Your task to perform on an android device: change the clock display to digital Image 0: 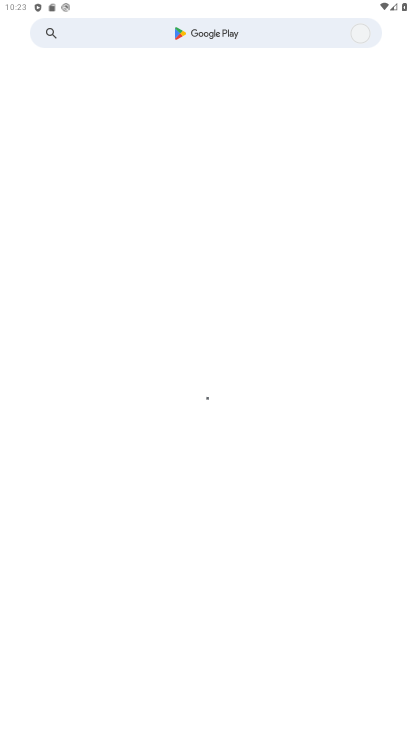
Step 0: press home button
Your task to perform on an android device: change the clock display to digital Image 1: 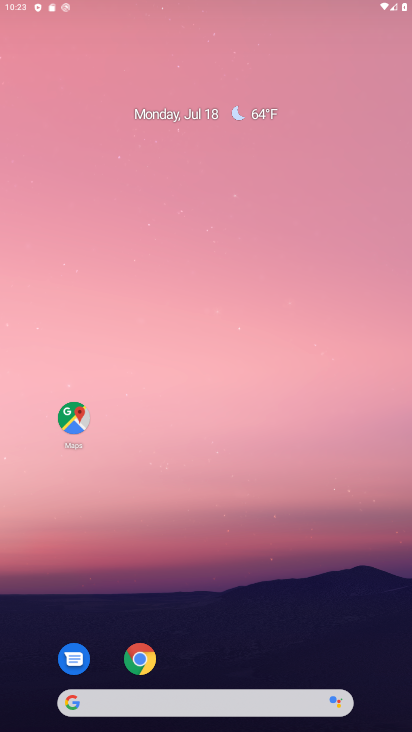
Step 1: drag from (206, 672) to (238, 71)
Your task to perform on an android device: change the clock display to digital Image 2: 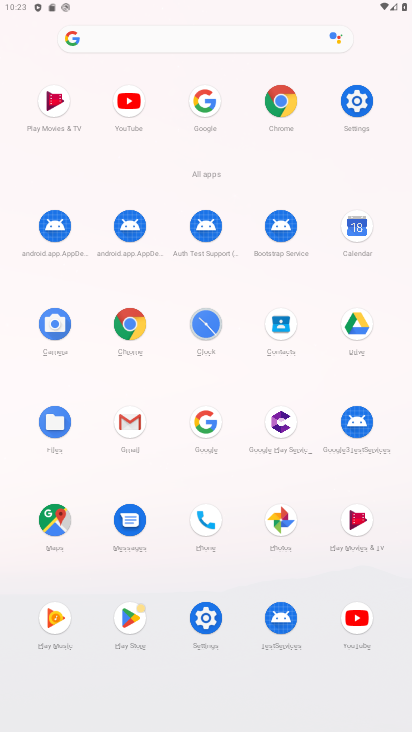
Step 2: click (210, 327)
Your task to perform on an android device: change the clock display to digital Image 3: 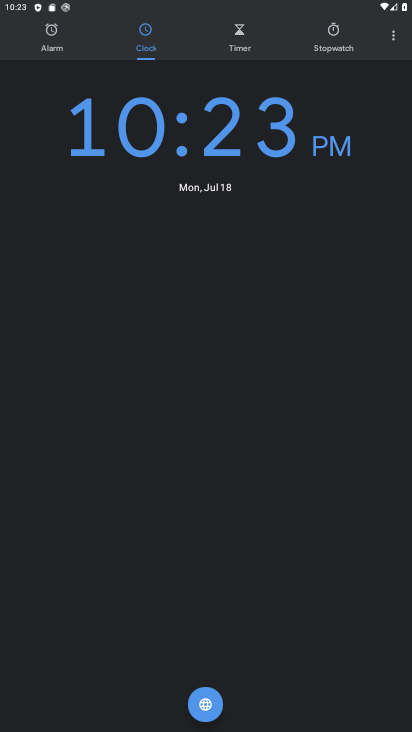
Step 3: click (390, 34)
Your task to perform on an android device: change the clock display to digital Image 4: 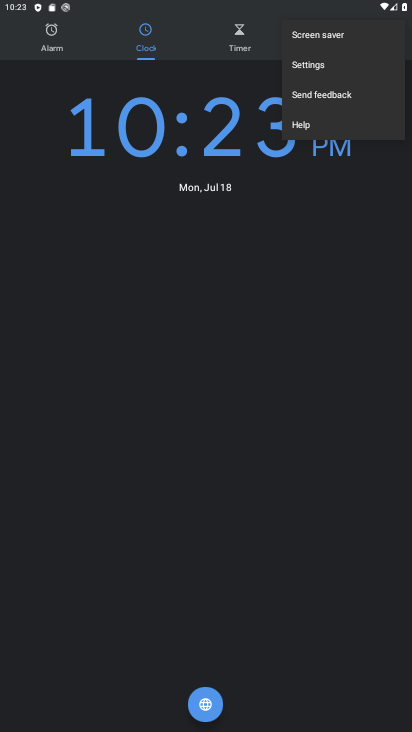
Step 4: click (322, 72)
Your task to perform on an android device: change the clock display to digital Image 5: 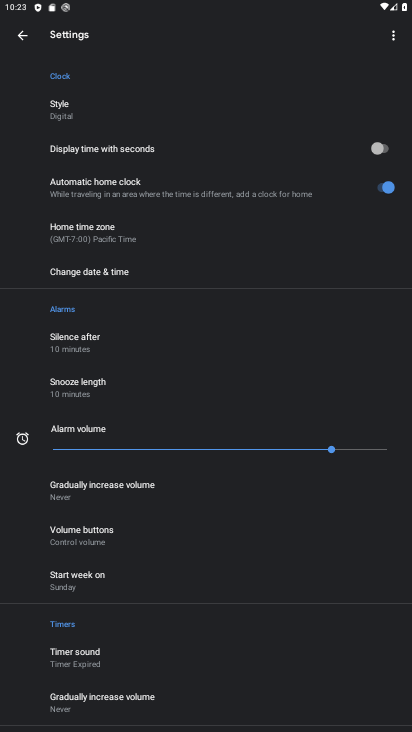
Step 5: task complete